Your task to perform on an android device: make emails show in primary in the gmail app Image 0: 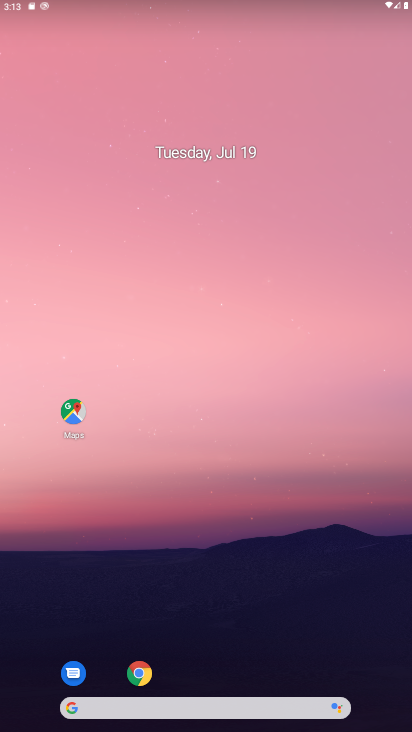
Step 0: click (253, 603)
Your task to perform on an android device: make emails show in primary in the gmail app Image 1: 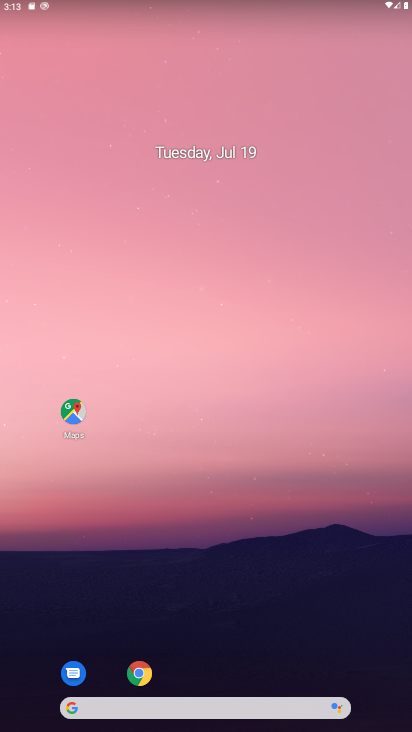
Step 1: drag from (206, 664) to (216, 15)
Your task to perform on an android device: make emails show in primary in the gmail app Image 2: 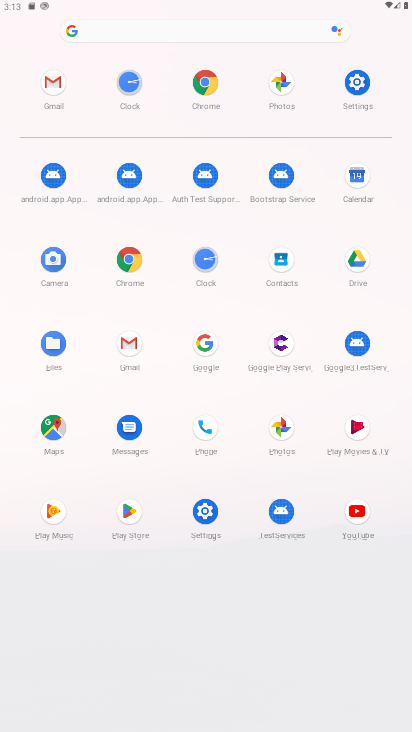
Step 2: click (131, 353)
Your task to perform on an android device: make emails show in primary in the gmail app Image 3: 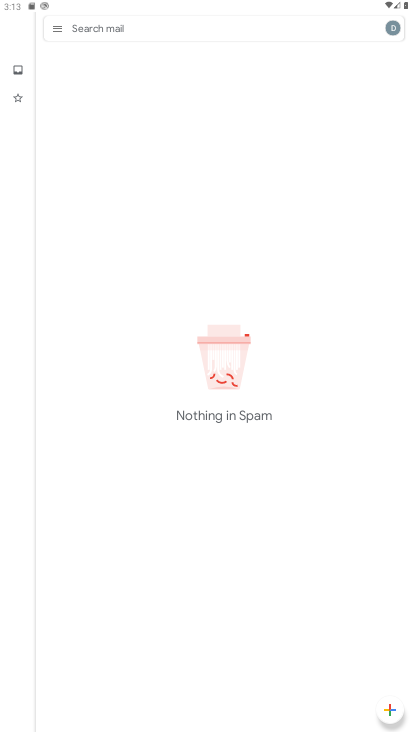
Step 3: click (55, 27)
Your task to perform on an android device: make emails show in primary in the gmail app Image 4: 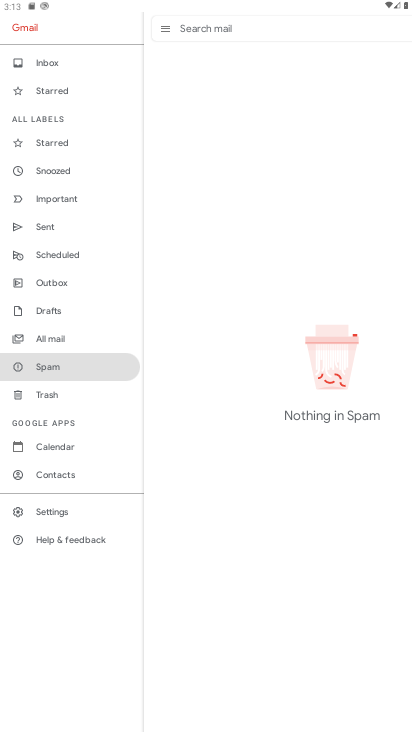
Step 4: click (59, 511)
Your task to perform on an android device: make emails show in primary in the gmail app Image 5: 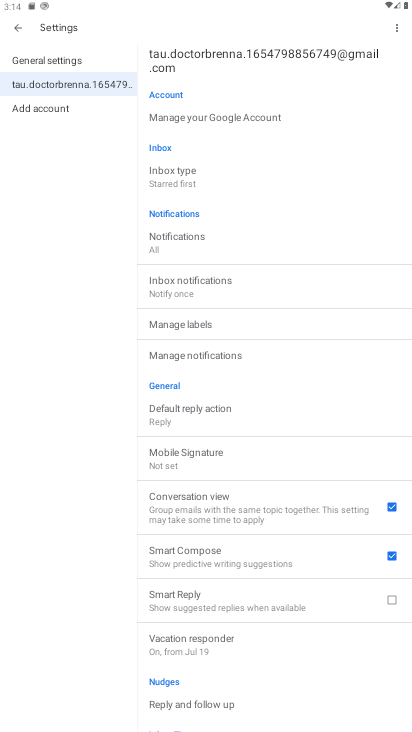
Step 5: click (186, 184)
Your task to perform on an android device: make emails show in primary in the gmail app Image 6: 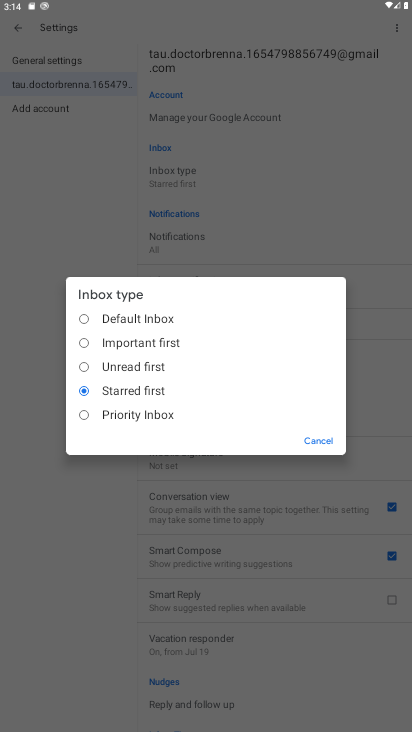
Step 6: click (123, 314)
Your task to perform on an android device: make emails show in primary in the gmail app Image 7: 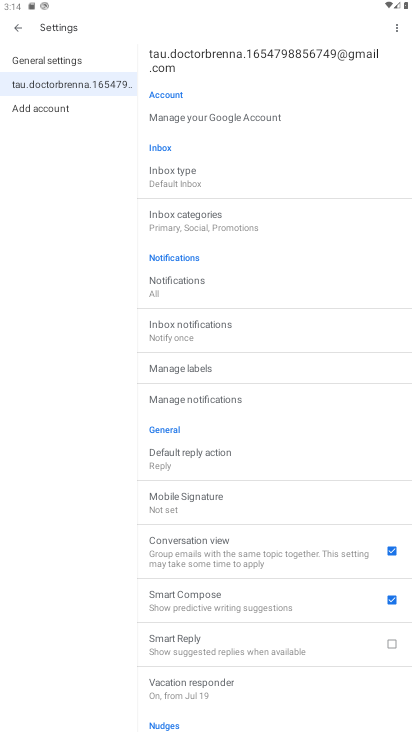
Step 7: click (194, 220)
Your task to perform on an android device: make emails show in primary in the gmail app Image 8: 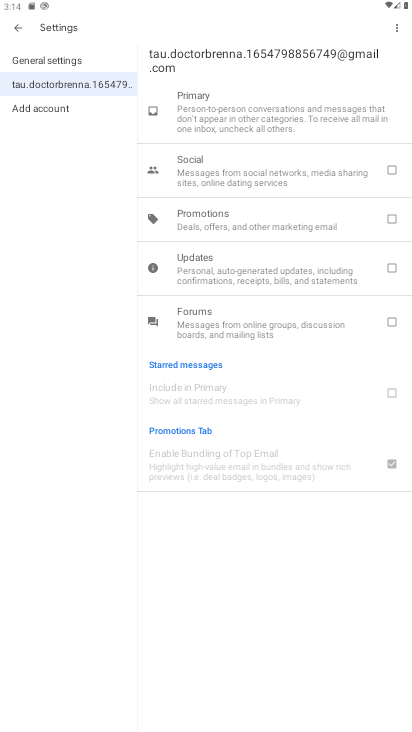
Step 8: task complete